Your task to perform on an android device: Go to settings Image 0: 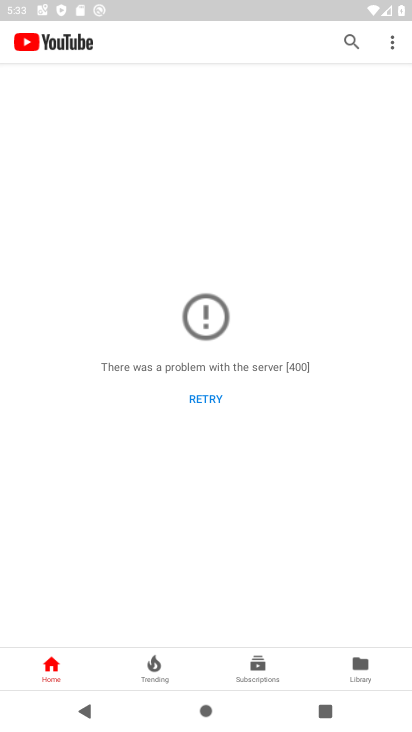
Step 0: press back button
Your task to perform on an android device: Go to settings Image 1: 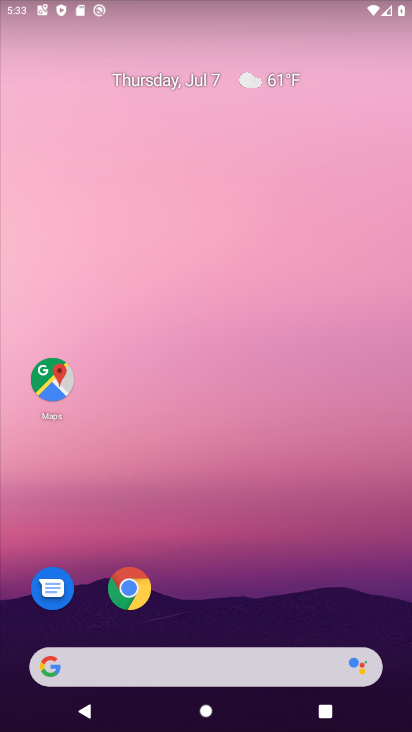
Step 1: drag from (197, 524) to (267, 29)
Your task to perform on an android device: Go to settings Image 2: 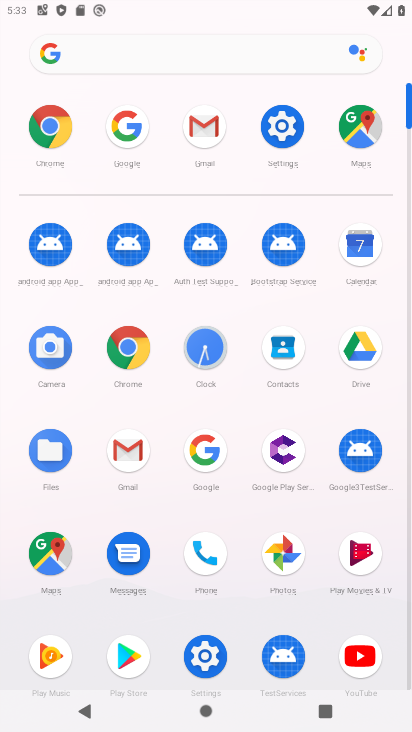
Step 2: click (284, 134)
Your task to perform on an android device: Go to settings Image 3: 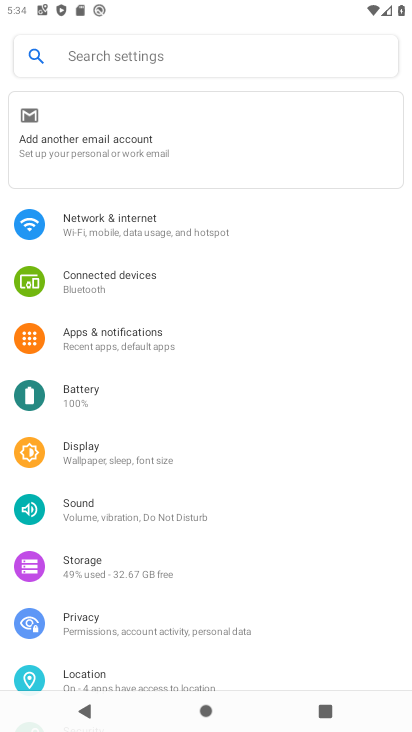
Step 3: task complete